Your task to perform on an android device: Go to calendar. Show me events next week Image 0: 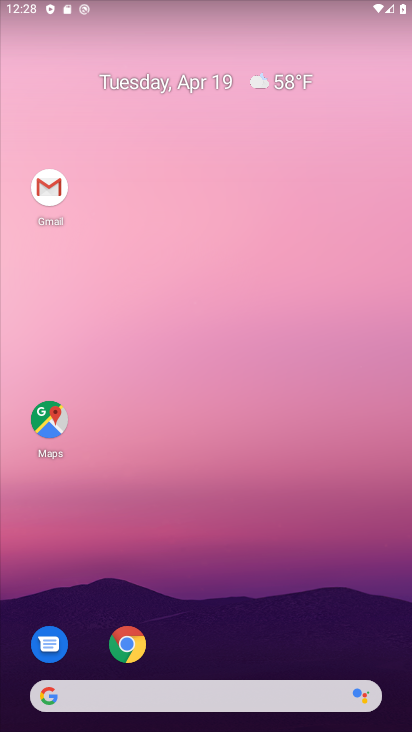
Step 0: drag from (212, 454) to (192, 116)
Your task to perform on an android device: Go to calendar. Show me events next week Image 1: 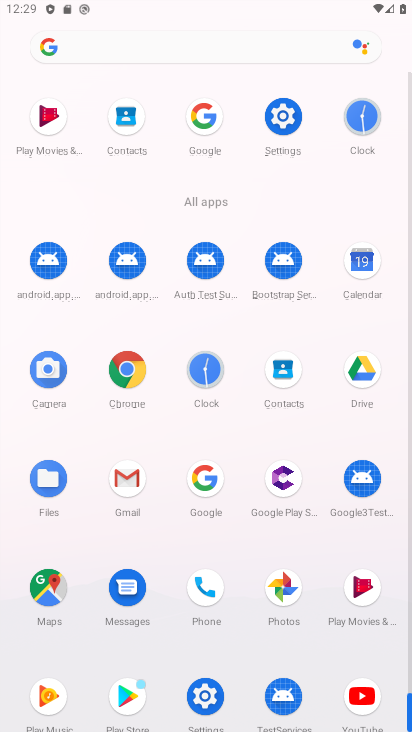
Step 1: click (360, 268)
Your task to perform on an android device: Go to calendar. Show me events next week Image 2: 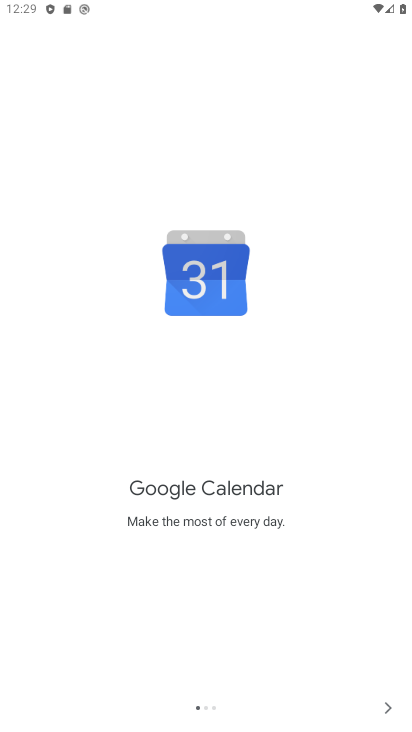
Step 2: click (381, 717)
Your task to perform on an android device: Go to calendar. Show me events next week Image 3: 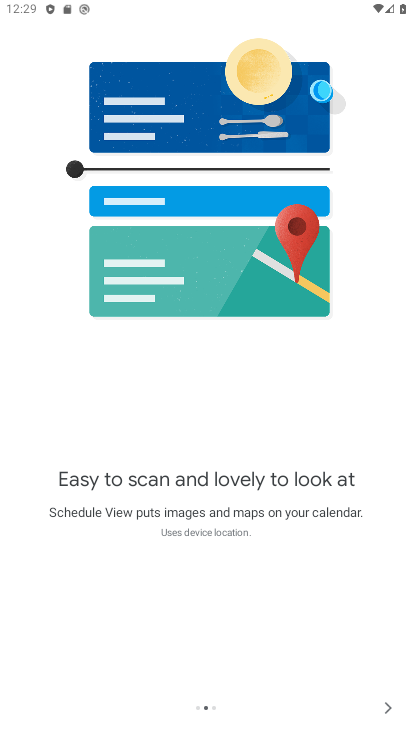
Step 3: click (386, 717)
Your task to perform on an android device: Go to calendar. Show me events next week Image 4: 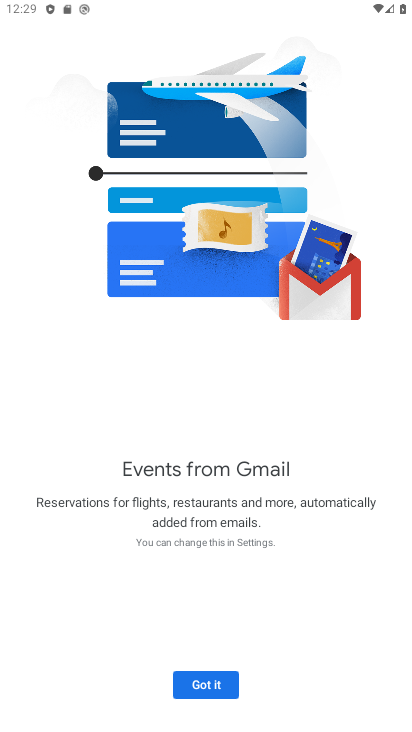
Step 4: click (199, 680)
Your task to perform on an android device: Go to calendar. Show me events next week Image 5: 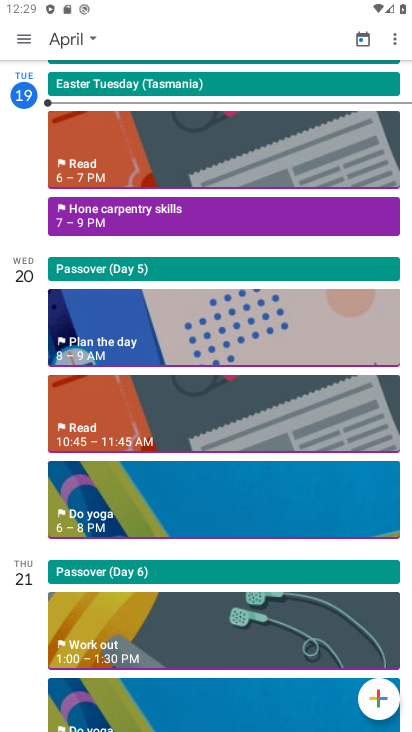
Step 5: click (24, 40)
Your task to perform on an android device: Go to calendar. Show me events next week Image 6: 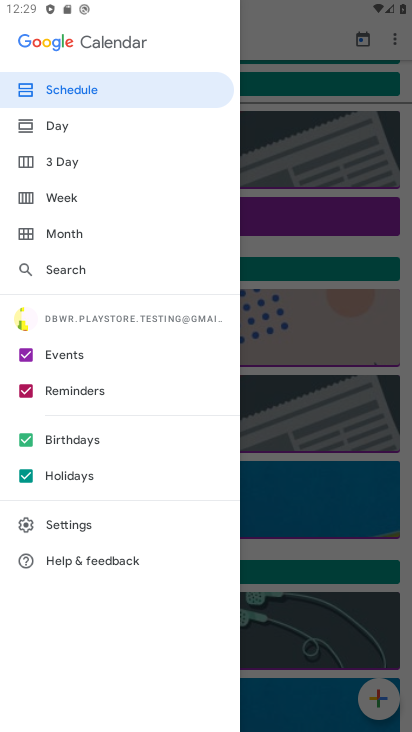
Step 6: click (89, 210)
Your task to perform on an android device: Go to calendar. Show me events next week Image 7: 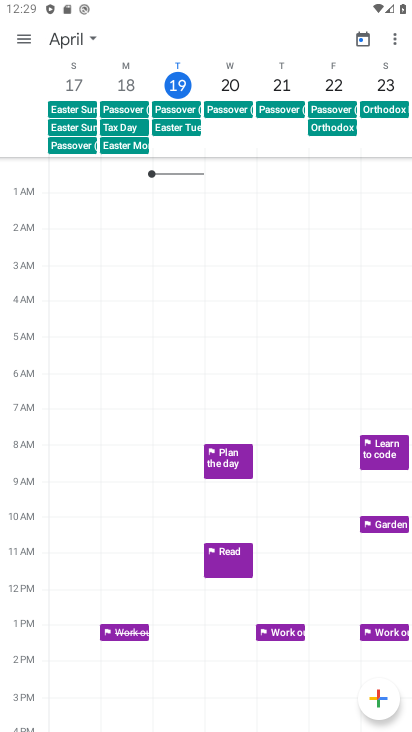
Step 7: task complete